Your task to perform on an android device: Open Yahoo.com Image 0: 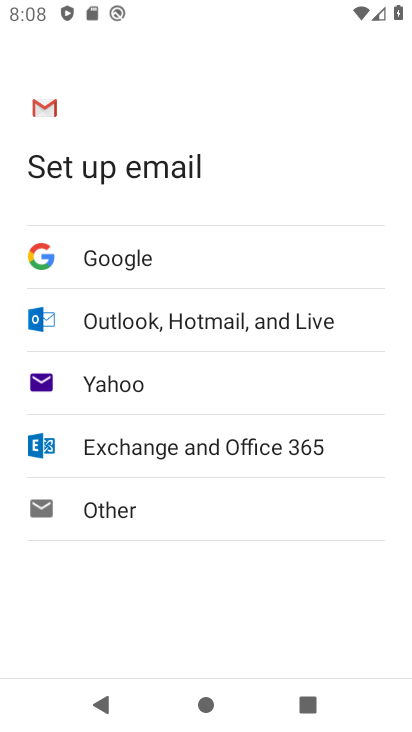
Step 0: press home button
Your task to perform on an android device: Open Yahoo.com Image 1: 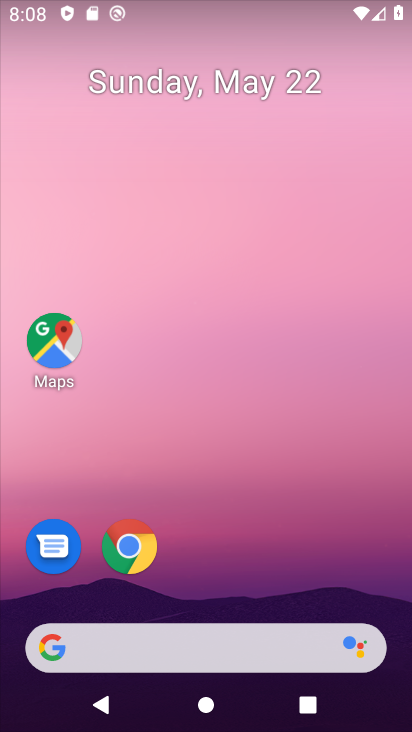
Step 1: click (136, 544)
Your task to perform on an android device: Open Yahoo.com Image 2: 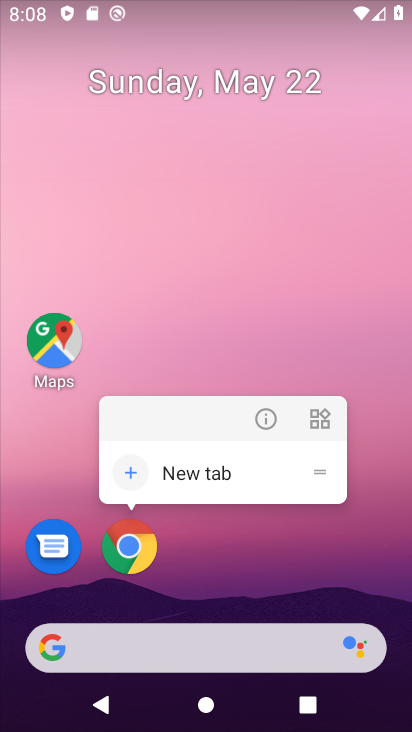
Step 2: click (136, 544)
Your task to perform on an android device: Open Yahoo.com Image 3: 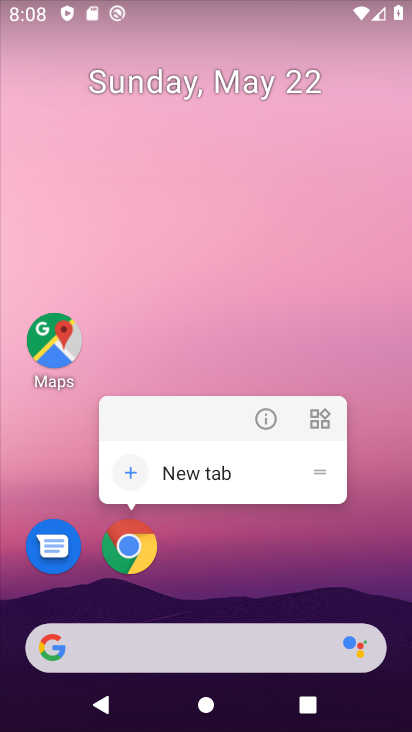
Step 3: click (136, 543)
Your task to perform on an android device: Open Yahoo.com Image 4: 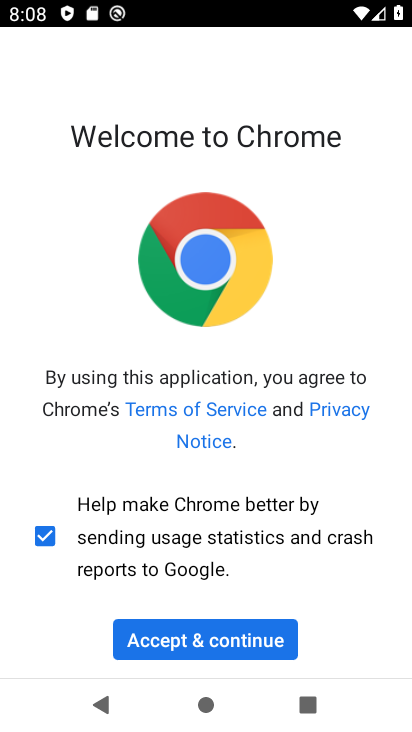
Step 4: click (232, 635)
Your task to perform on an android device: Open Yahoo.com Image 5: 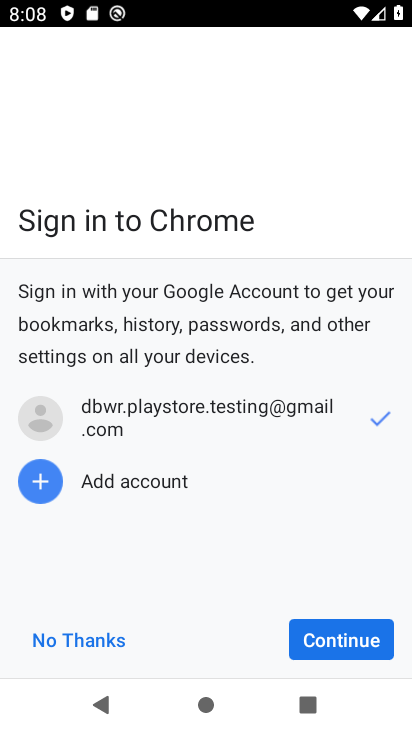
Step 5: click (335, 637)
Your task to perform on an android device: Open Yahoo.com Image 6: 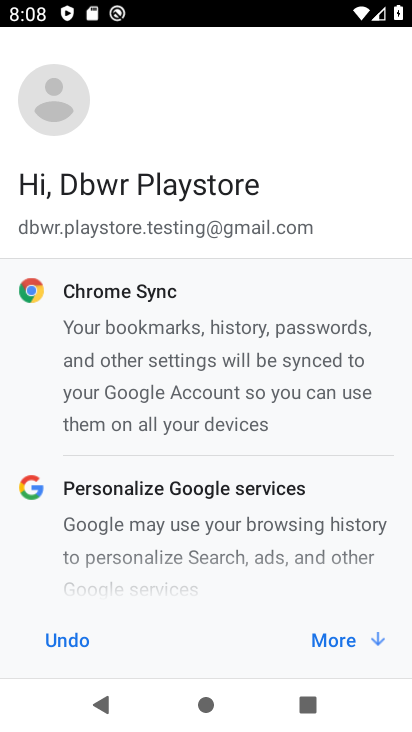
Step 6: click (335, 638)
Your task to perform on an android device: Open Yahoo.com Image 7: 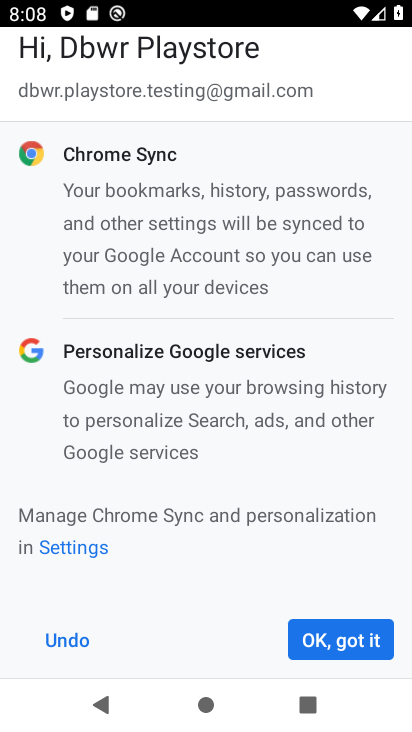
Step 7: click (335, 638)
Your task to perform on an android device: Open Yahoo.com Image 8: 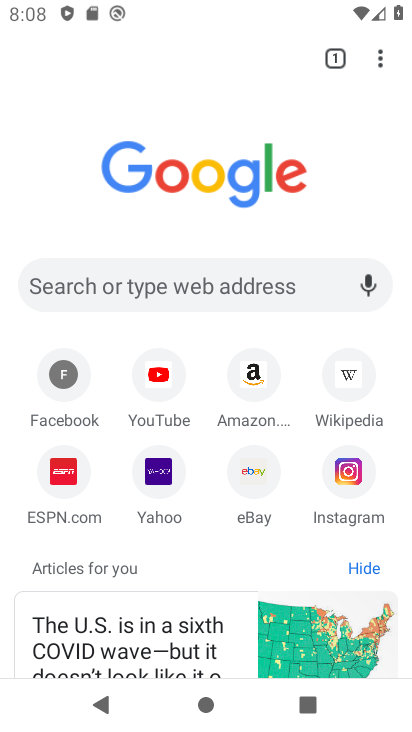
Step 8: click (169, 483)
Your task to perform on an android device: Open Yahoo.com Image 9: 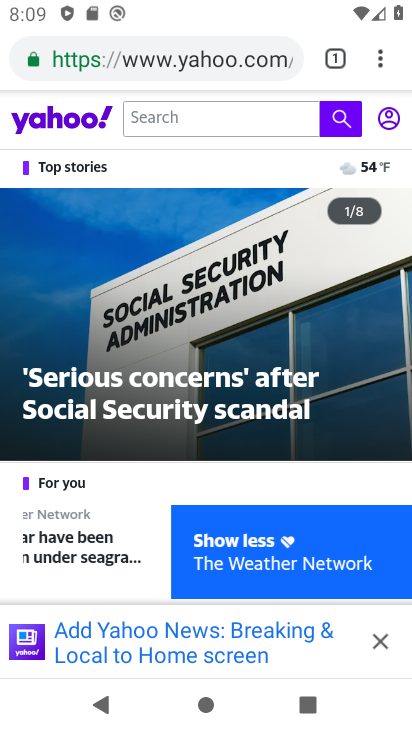
Step 9: task complete